Your task to perform on an android device: Show the shopping cart on newegg. Image 0: 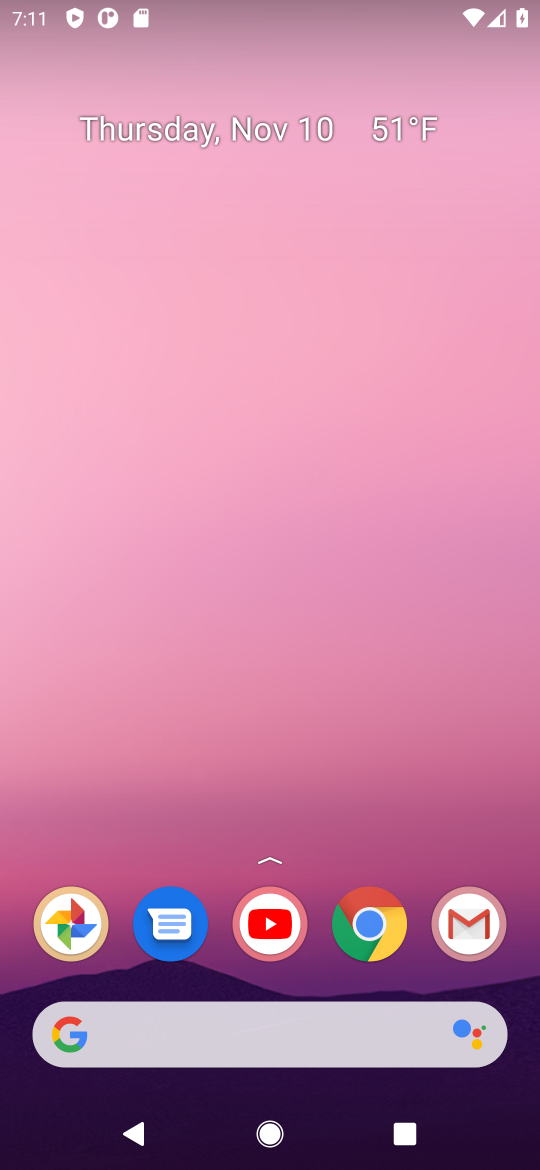
Step 0: click (377, 928)
Your task to perform on an android device: Show the shopping cart on newegg. Image 1: 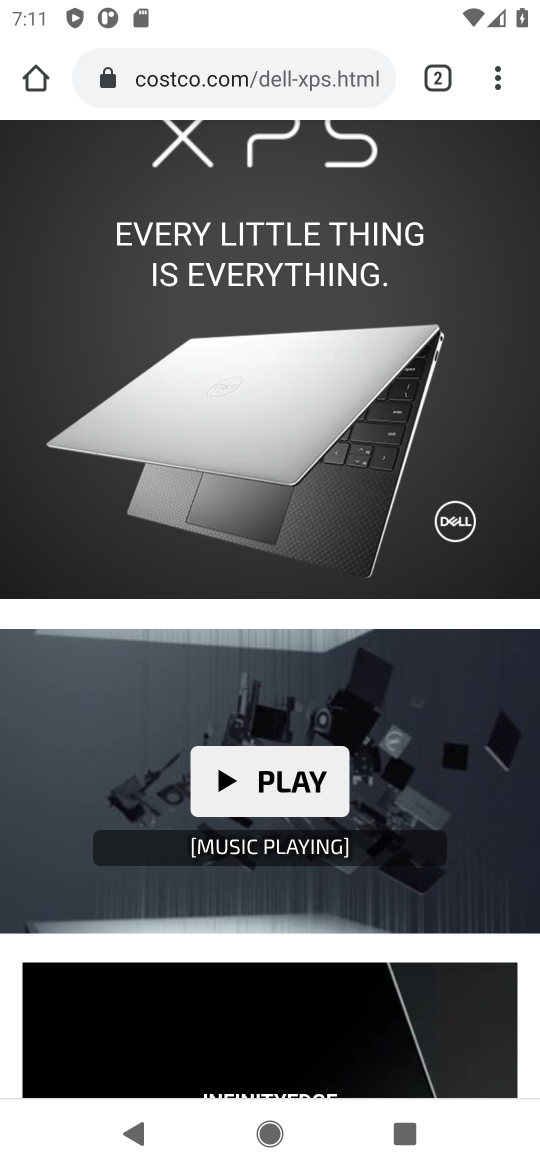
Step 1: click (225, 77)
Your task to perform on an android device: Show the shopping cart on newegg. Image 2: 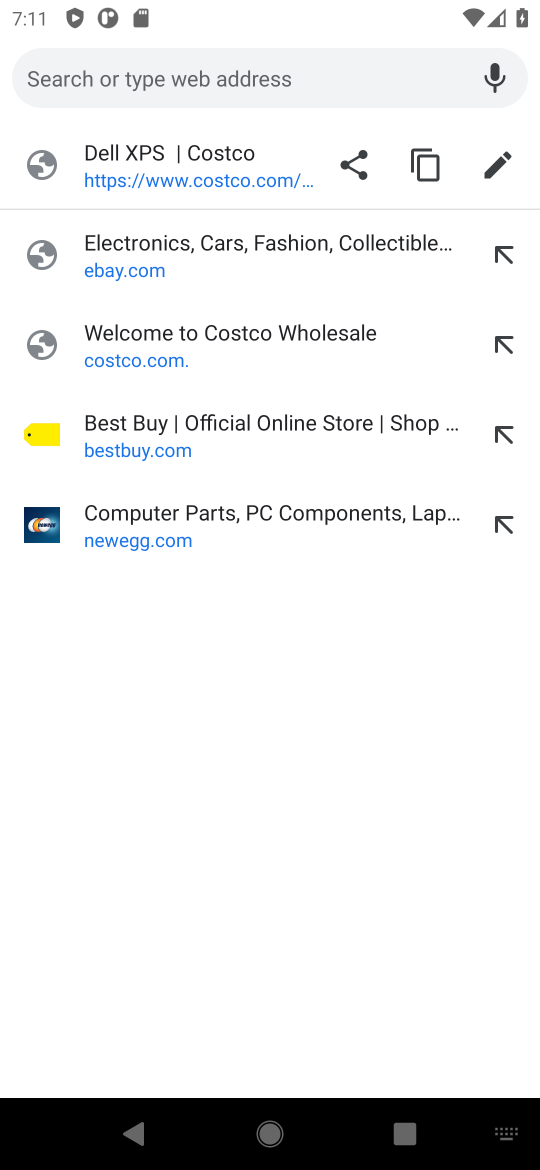
Step 2: click (139, 533)
Your task to perform on an android device: Show the shopping cart on newegg. Image 3: 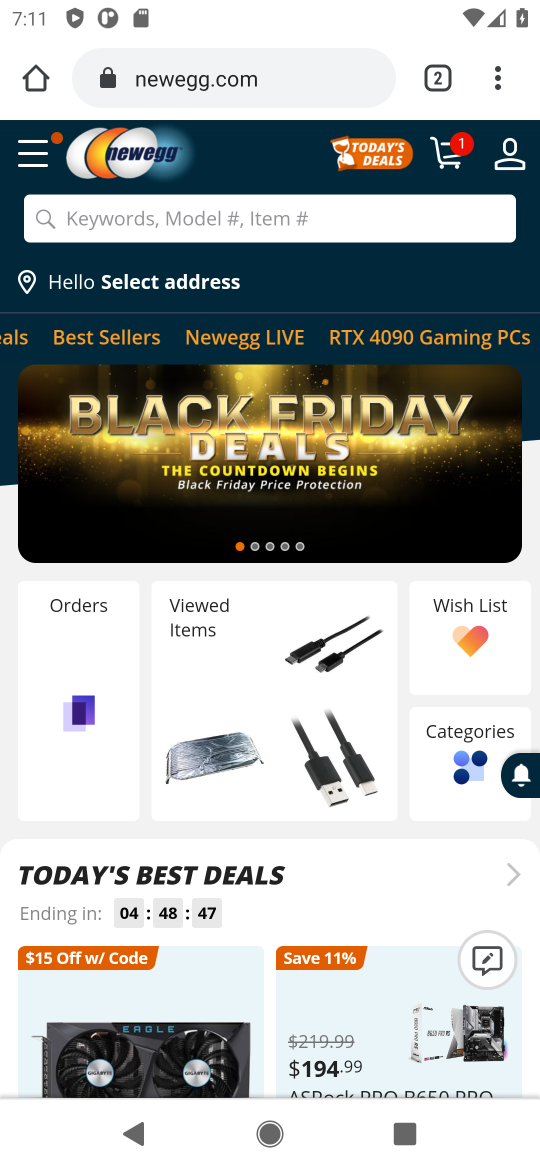
Step 3: click (453, 154)
Your task to perform on an android device: Show the shopping cart on newegg. Image 4: 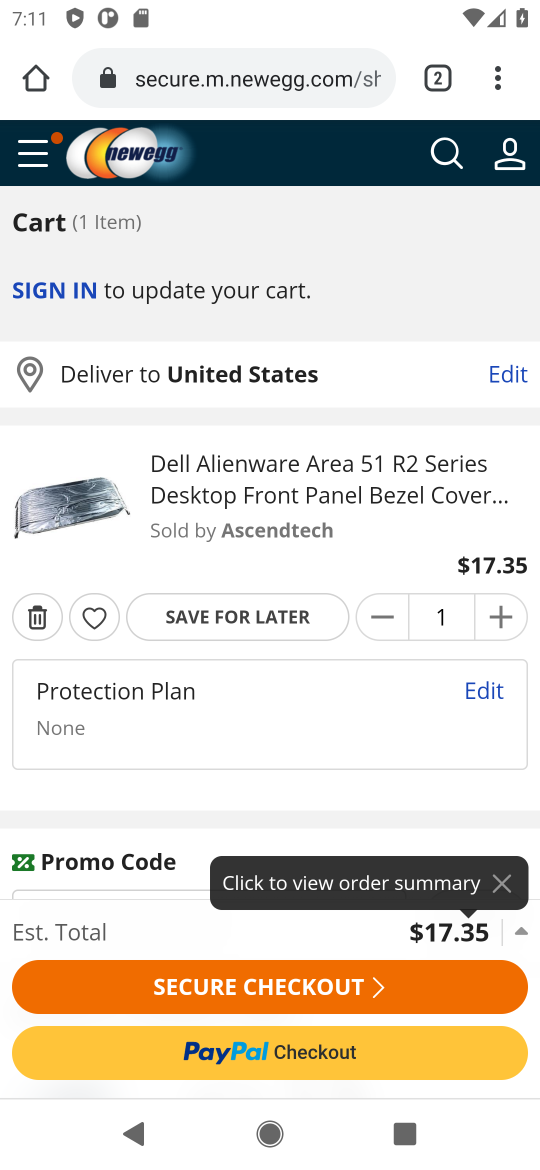
Step 4: task complete